Your task to perform on an android device: turn off data saver in the chrome app Image 0: 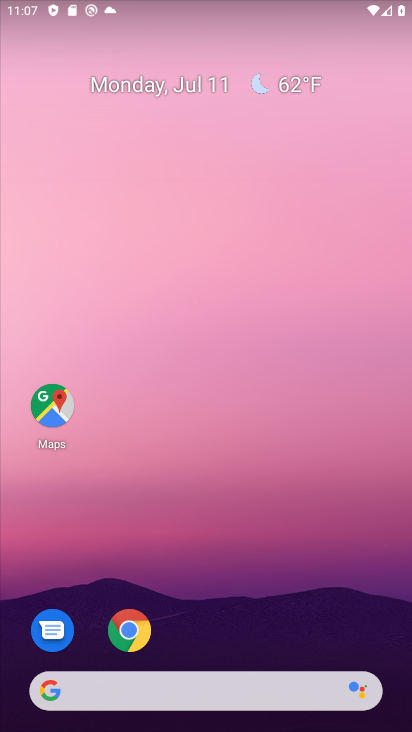
Step 0: drag from (232, 693) to (243, 0)
Your task to perform on an android device: turn off data saver in the chrome app Image 1: 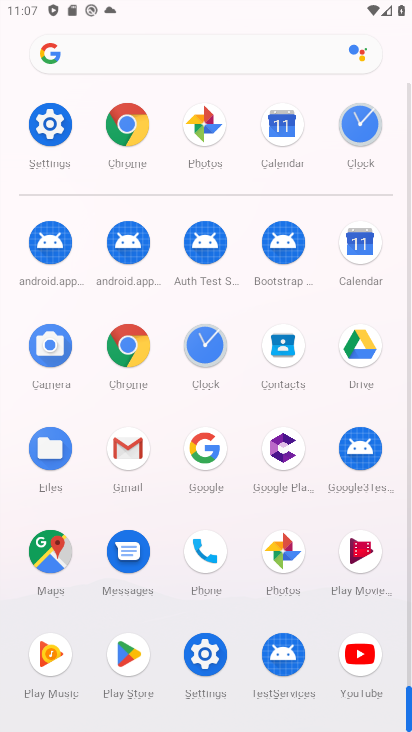
Step 1: click (120, 341)
Your task to perform on an android device: turn off data saver in the chrome app Image 2: 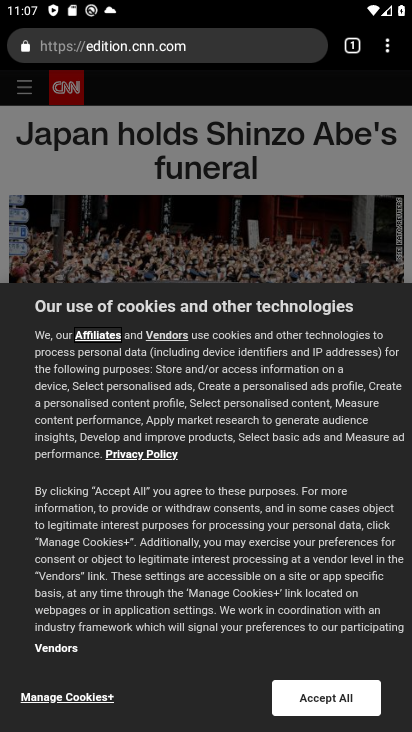
Step 2: drag from (387, 48) to (244, 494)
Your task to perform on an android device: turn off data saver in the chrome app Image 3: 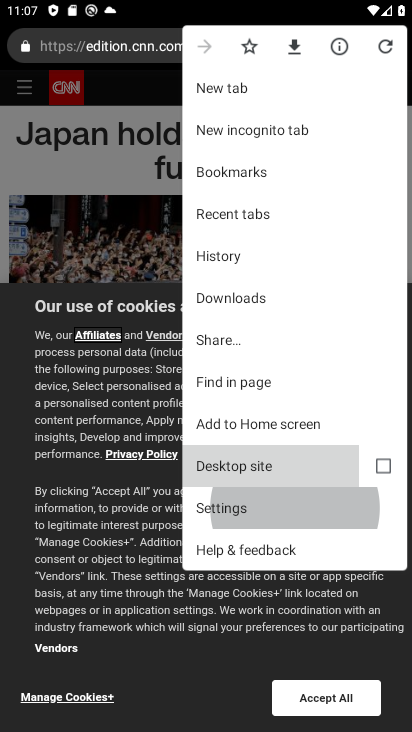
Step 3: click (237, 505)
Your task to perform on an android device: turn off data saver in the chrome app Image 4: 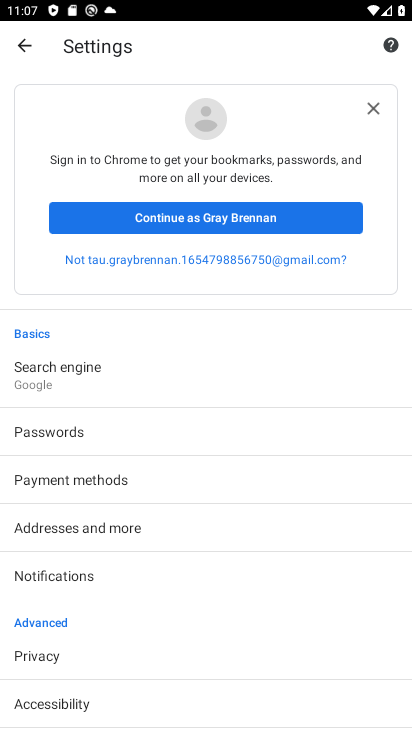
Step 4: drag from (63, 666) to (138, 295)
Your task to perform on an android device: turn off data saver in the chrome app Image 5: 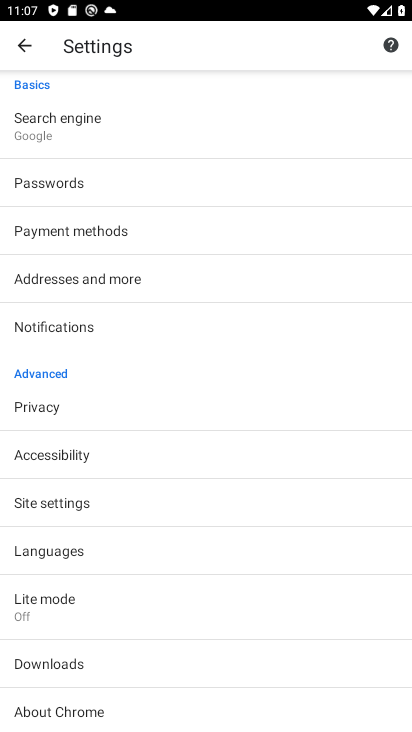
Step 5: click (45, 597)
Your task to perform on an android device: turn off data saver in the chrome app Image 6: 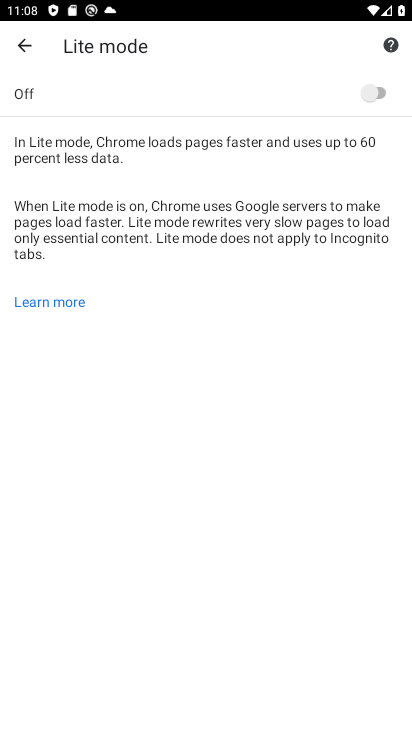
Step 6: task complete